Your task to perform on an android device: Open Amazon Image 0: 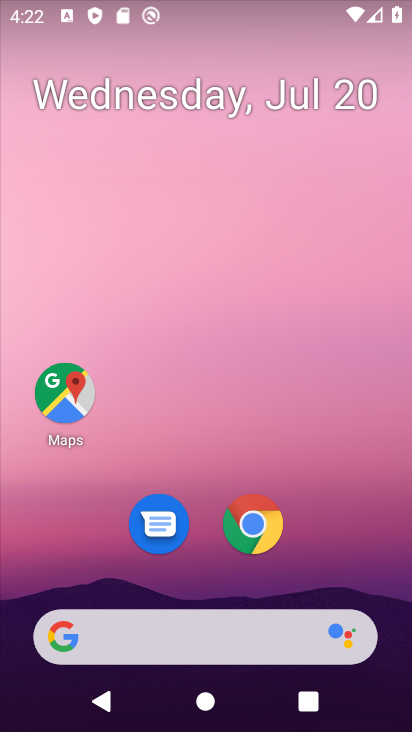
Step 0: drag from (312, 556) to (300, 53)
Your task to perform on an android device: Open Amazon Image 1: 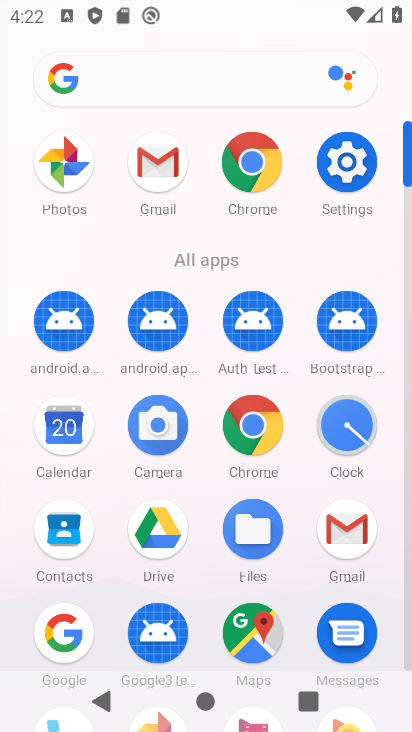
Step 1: click (268, 160)
Your task to perform on an android device: Open Amazon Image 2: 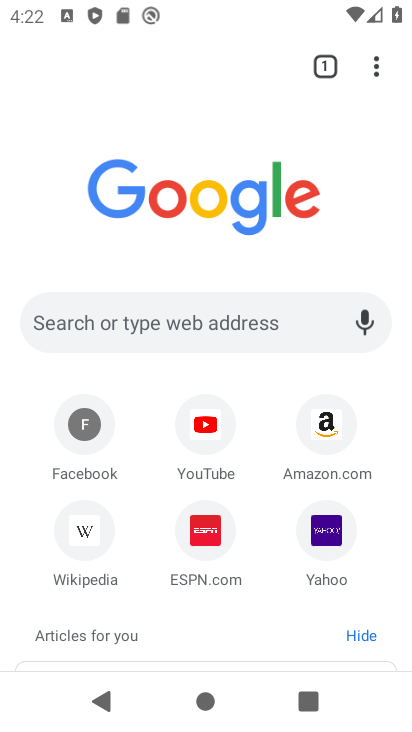
Step 2: click (335, 426)
Your task to perform on an android device: Open Amazon Image 3: 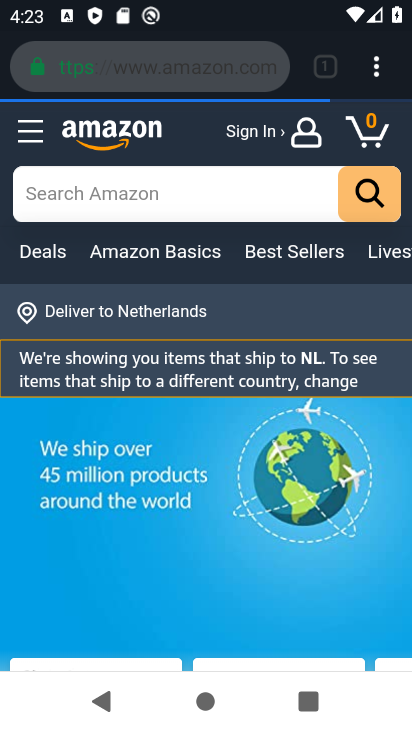
Step 3: task complete